Your task to perform on an android device: open sync settings in chrome Image 0: 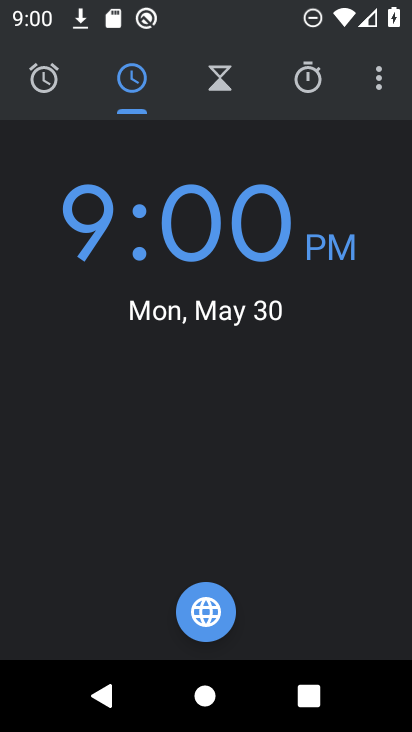
Step 0: press home button
Your task to perform on an android device: open sync settings in chrome Image 1: 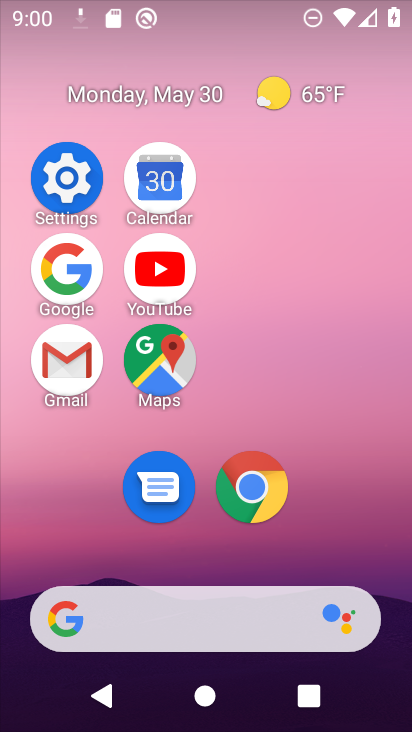
Step 1: click (268, 483)
Your task to perform on an android device: open sync settings in chrome Image 2: 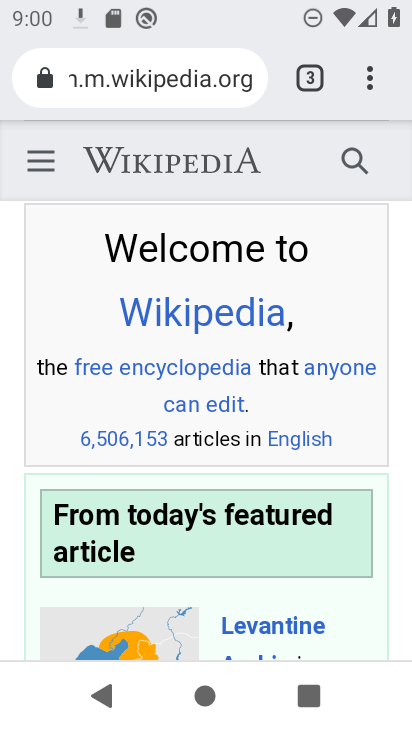
Step 2: click (370, 68)
Your task to perform on an android device: open sync settings in chrome Image 3: 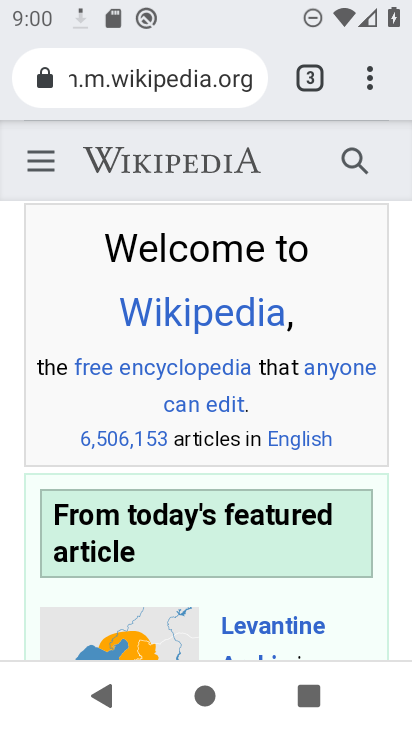
Step 3: click (375, 76)
Your task to perform on an android device: open sync settings in chrome Image 4: 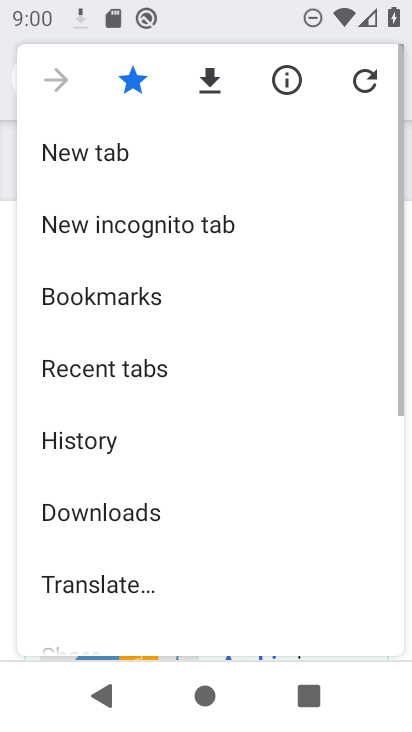
Step 4: drag from (230, 462) to (307, 116)
Your task to perform on an android device: open sync settings in chrome Image 5: 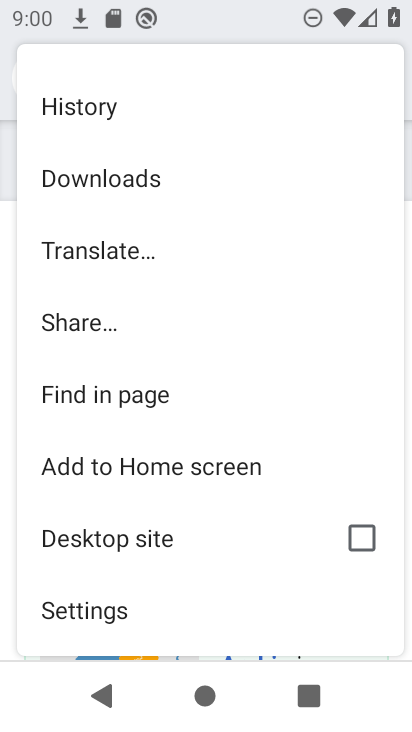
Step 5: click (123, 601)
Your task to perform on an android device: open sync settings in chrome Image 6: 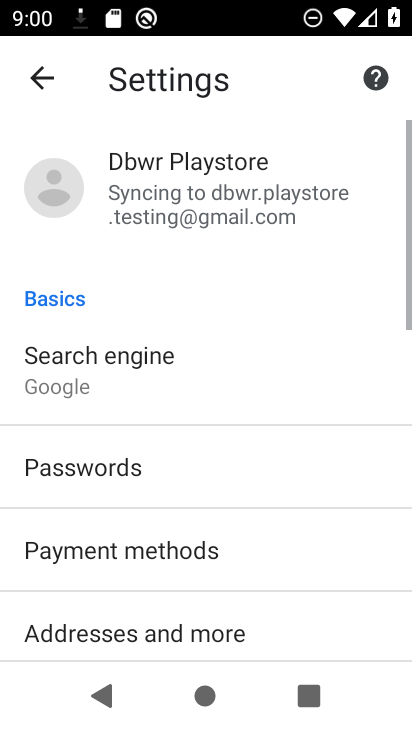
Step 6: drag from (123, 601) to (203, 150)
Your task to perform on an android device: open sync settings in chrome Image 7: 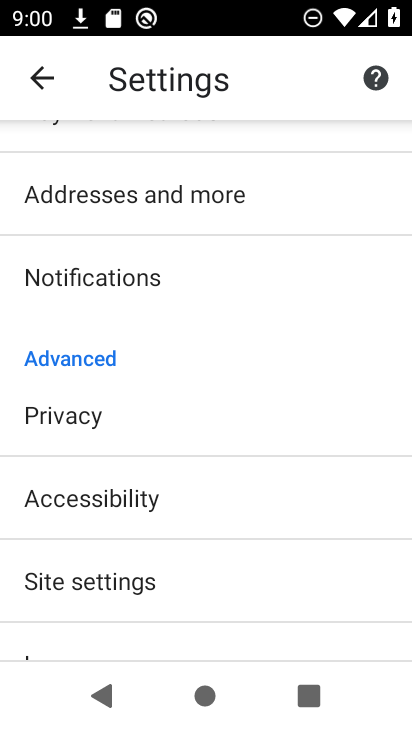
Step 7: drag from (218, 562) to (210, 136)
Your task to perform on an android device: open sync settings in chrome Image 8: 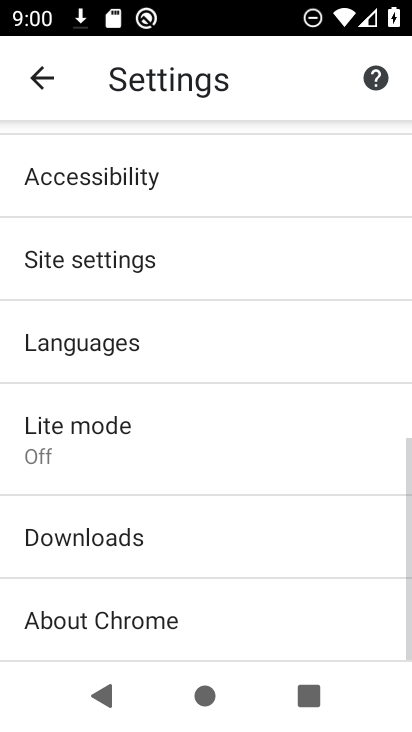
Step 8: drag from (178, 535) to (244, 123)
Your task to perform on an android device: open sync settings in chrome Image 9: 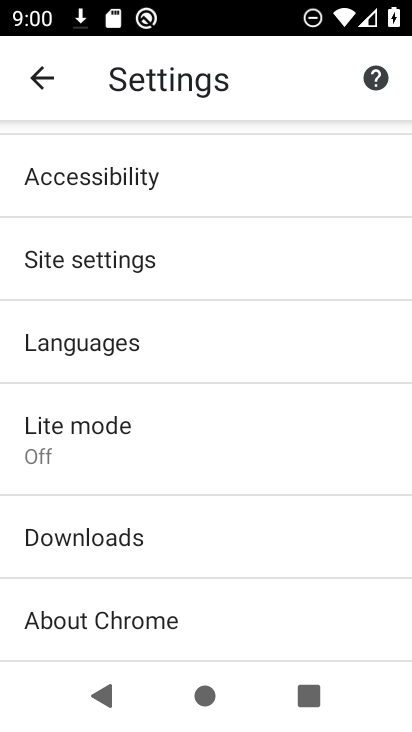
Step 9: click (265, 265)
Your task to perform on an android device: open sync settings in chrome Image 10: 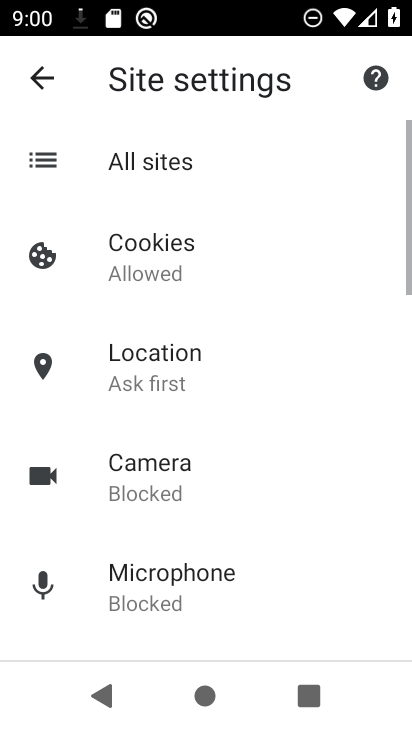
Step 10: drag from (237, 563) to (245, 53)
Your task to perform on an android device: open sync settings in chrome Image 11: 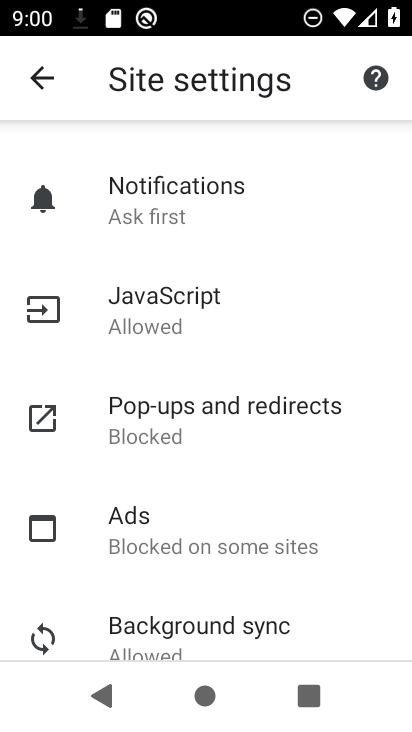
Step 11: click (245, 633)
Your task to perform on an android device: open sync settings in chrome Image 12: 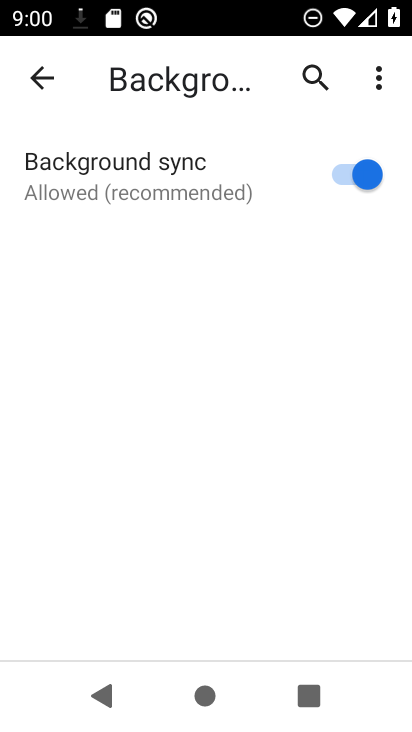
Step 12: task complete